Your task to perform on an android device: Go to Yahoo.com Image 0: 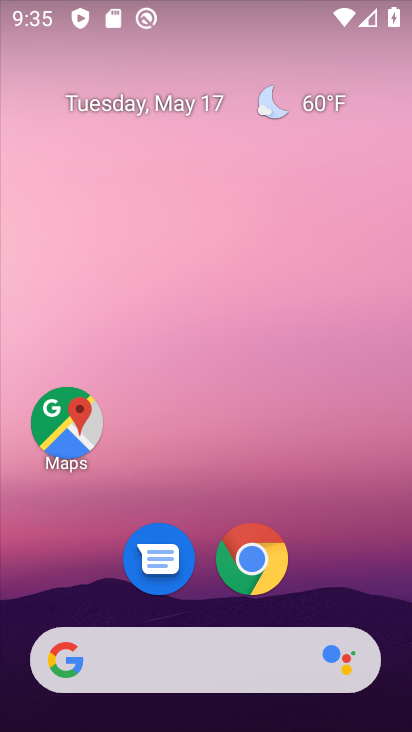
Step 0: click (264, 556)
Your task to perform on an android device: Go to Yahoo.com Image 1: 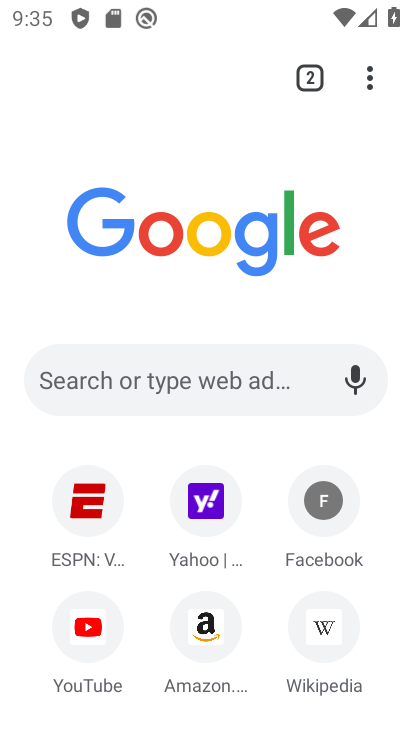
Step 1: click (205, 513)
Your task to perform on an android device: Go to Yahoo.com Image 2: 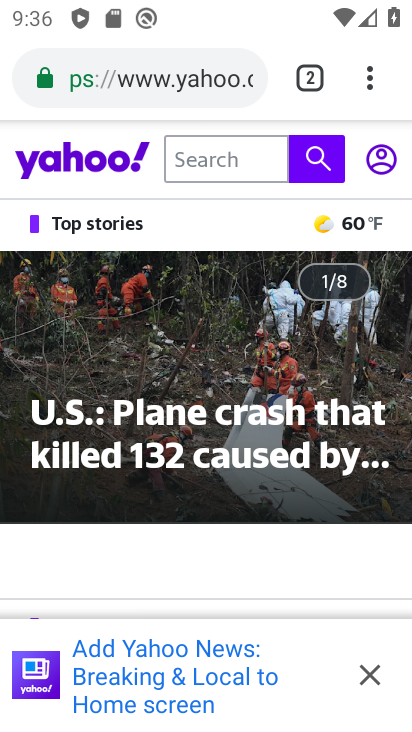
Step 2: task complete